Your task to perform on an android device: set default search engine in the chrome app Image 0: 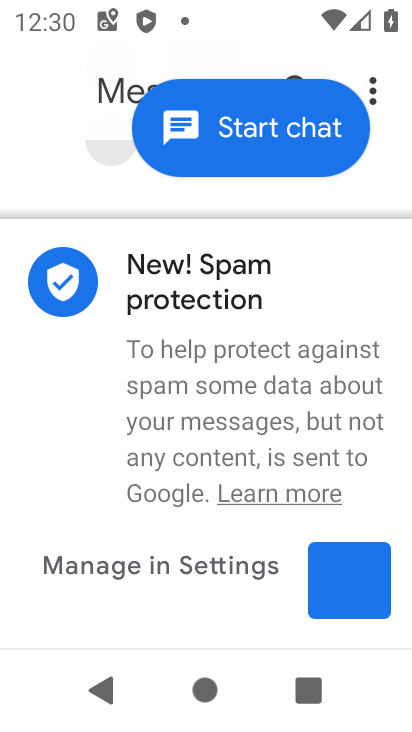
Step 0: press home button
Your task to perform on an android device: set default search engine in the chrome app Image 1: 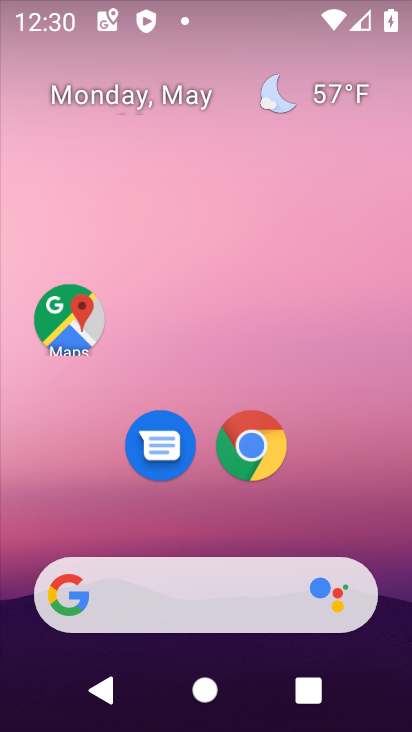
Step 1: click (275, 462)
Your task to perform on an android device: set default search engine in the chrome app Image 2: 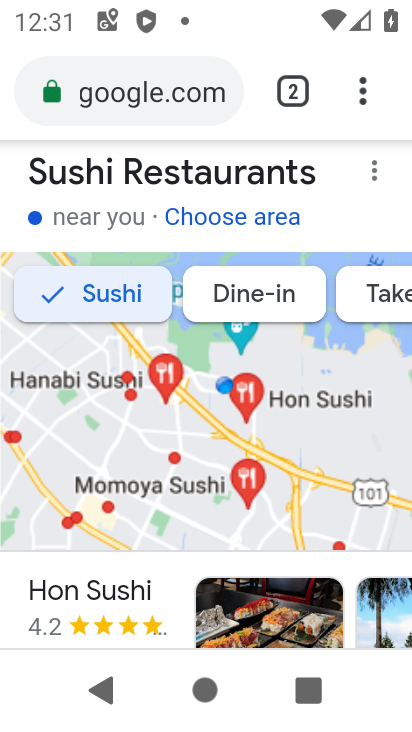
Step 2: click (357, 93)
Your task to perform on an android device: set default search engine in the chrome app Image 3: 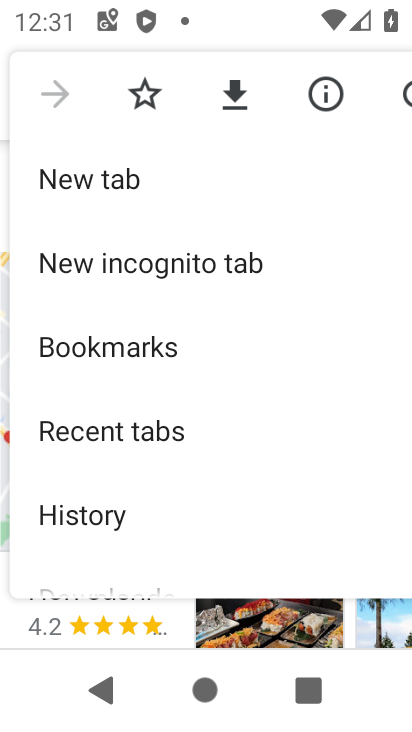
Step 3: drag from (258, 424) to (210, 222)
Your task to perform on an android device: set default search engine in the chrome app Image 4: 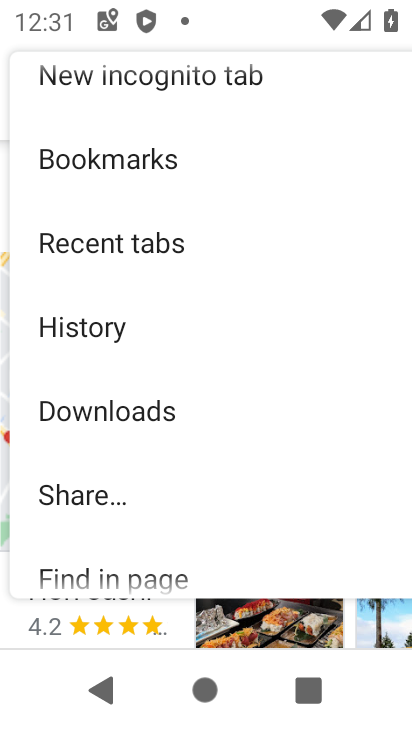
Step 4: drag from (217, 360) to (242, 125)
Your task to perform on an android device: set default search engine in the chrome app Image 5: 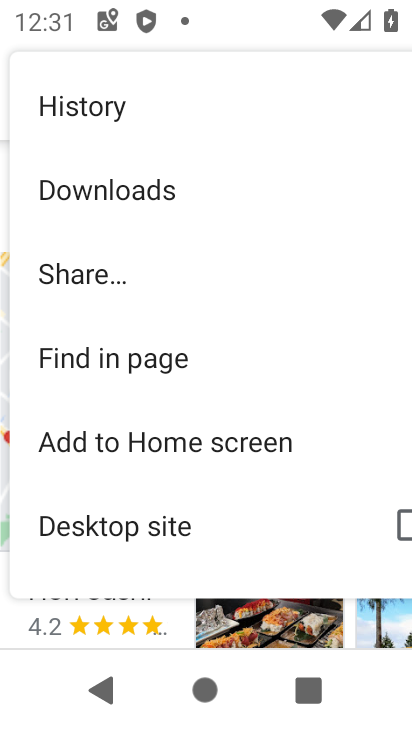
Step 5: drag from (250, 497) to (320, 145)
Your task to perform on an android device: set default search engine in the chrome app Image 6: 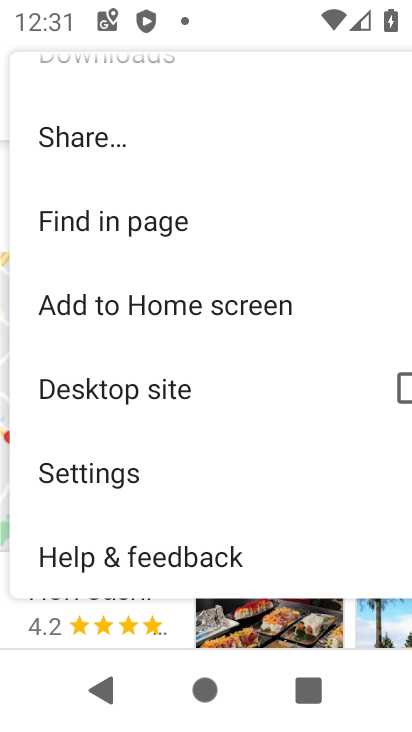
Step 6: click (112, 472)
Your task to perform on an android device: set default search engine in the chrome app Image 7: 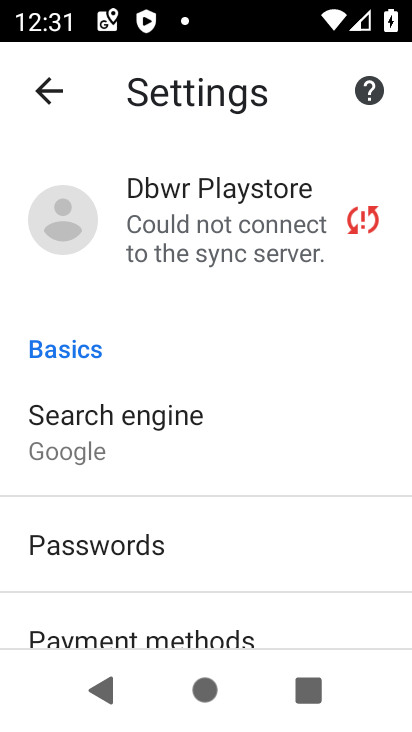
Step 7: drag from (228, 553) to (255, 225)
Your task to perform on an android device: set default search engine in the chrome app Image 8: 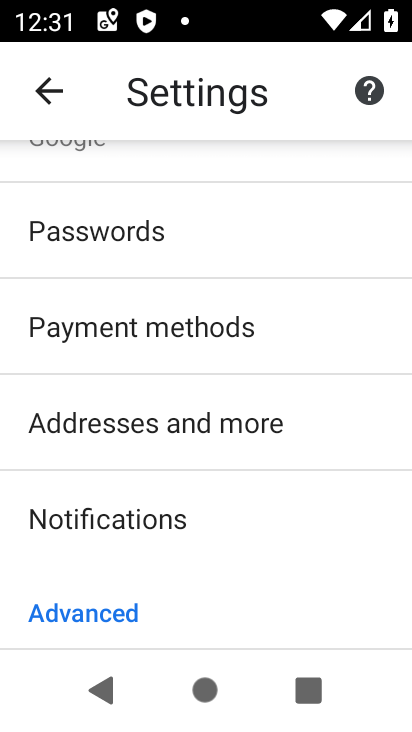
Step 8: drag from (220, 534) to (243, 245)
Your task to perform on an android device: set default search engine in the chrome app Image 9: 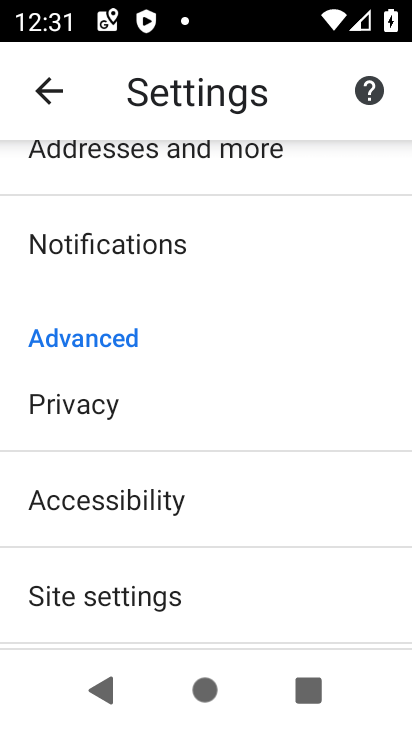
Step 9: click (172, 597)
Your task to perform on an android device: set default search engine in the chrome app Image 10: 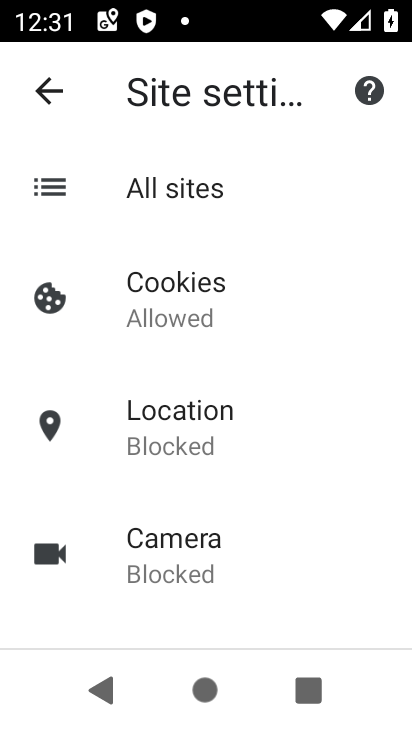
Step 10: drag from (254, 571) to (273, 252)
Your task to perform on an android device: set default search engine in the chrome app Image 11: 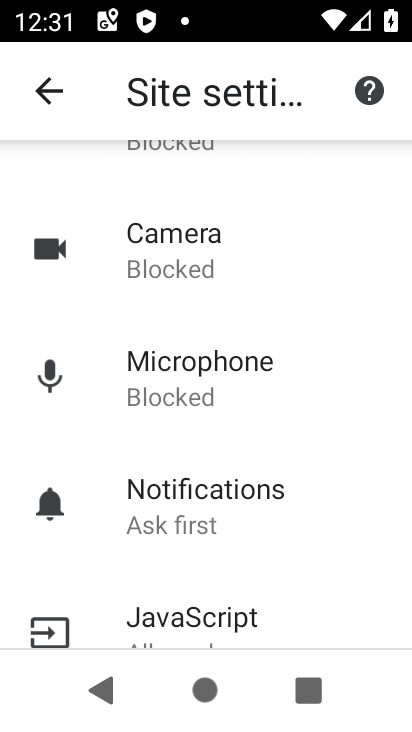
Step 11: drag from (288, 533) to (298, 162)
Your task to perform on an android device: set default search engine in the chrome app Image 12: 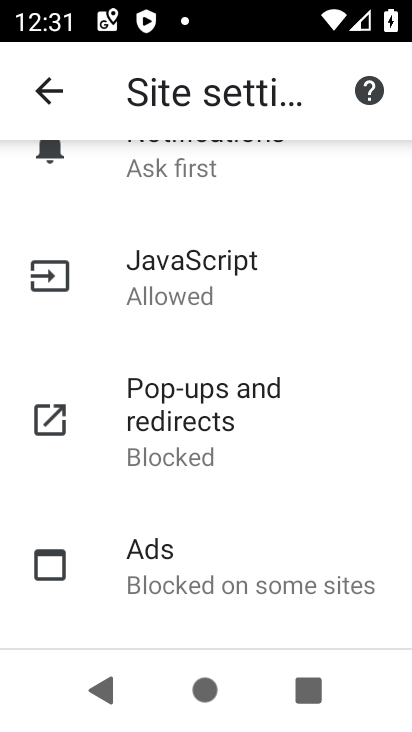
Step 12: drag from (284, 372) to (311, 185)
Your task to perform on an android device: set default search engine in the chrome app Image 13: 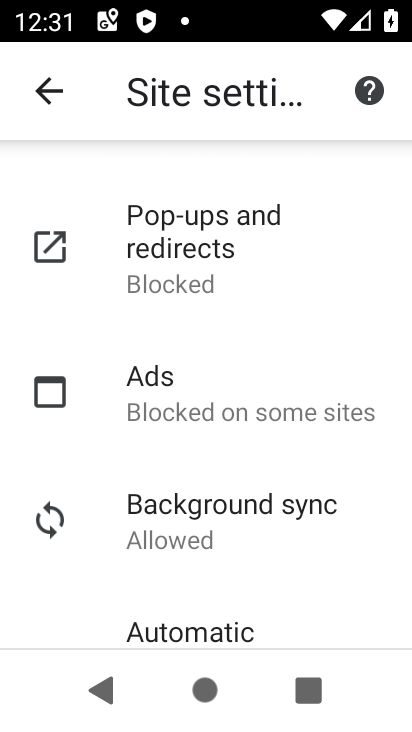
Step 13: drag from (251, 539) to (290, 211)
Your task to perform on an android device: set default search engine in the chrome app Image 14: 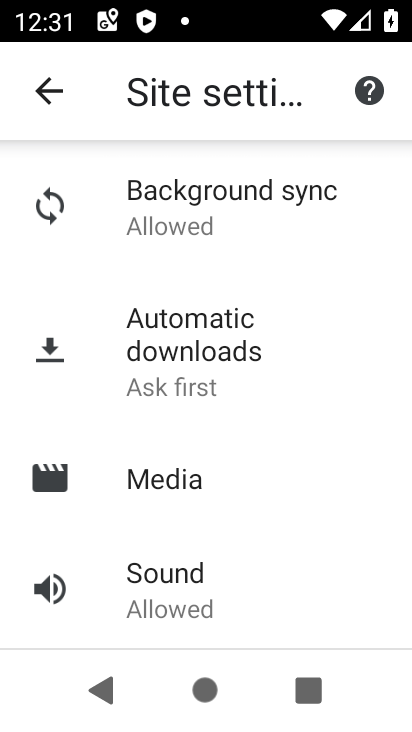
Step 14: drag from (262, 513) to (320, 231)
Your task to perform on an android device: set default search engine in the chrome app Image 15: 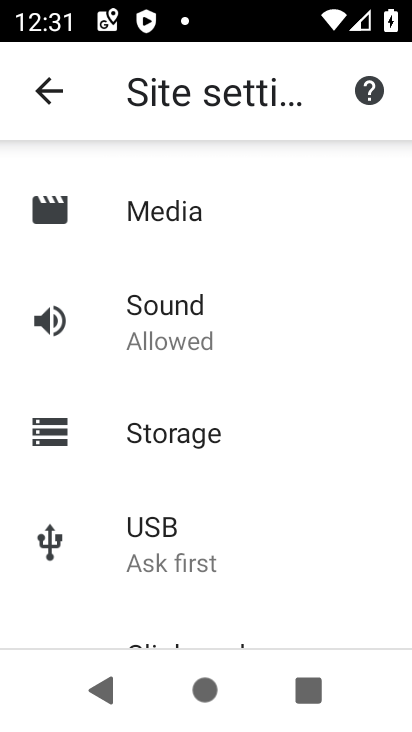
Step 15: drag from (288, 346) to (312, 244)
Your task to perform on an android device: set default search engine in the chrome app Image 16: 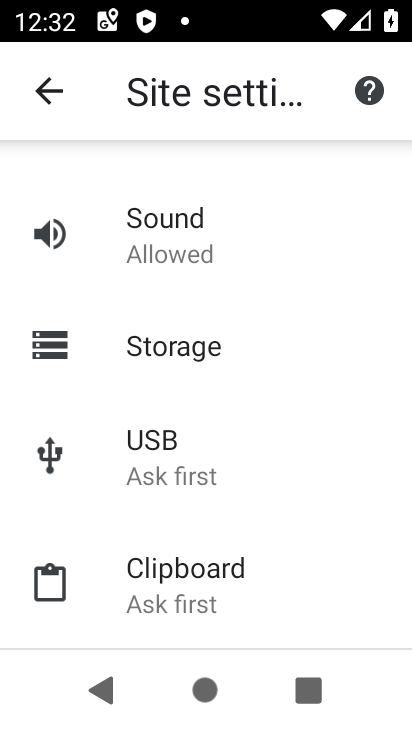
Step 16: drag from (287, 495) to (296, 280)
Your task to perform on an android device: set default search engine in the chrome app Image 17: 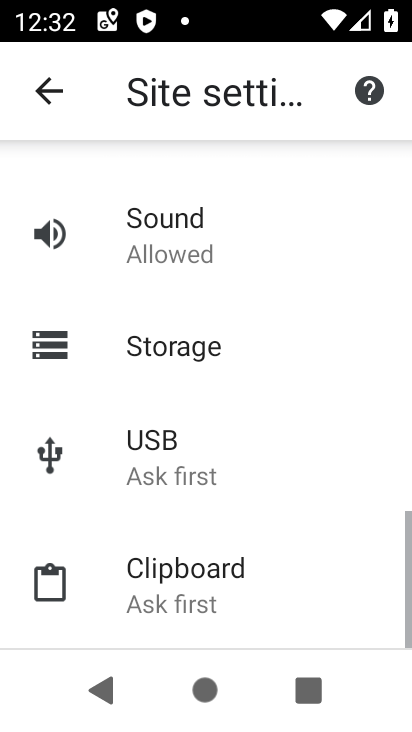
Step 17: drag from (301, 215) to (288, 560)
Your task to perform on an android device: set default search engine in the chrome app Image 18: 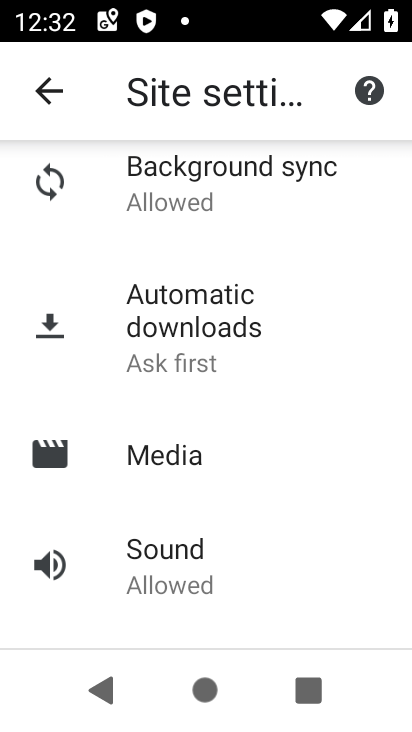
Step 18: drag from (273, 354) to (247, 622)
Your task to perform on an android device: set default search engine in the chrome app Image 19: 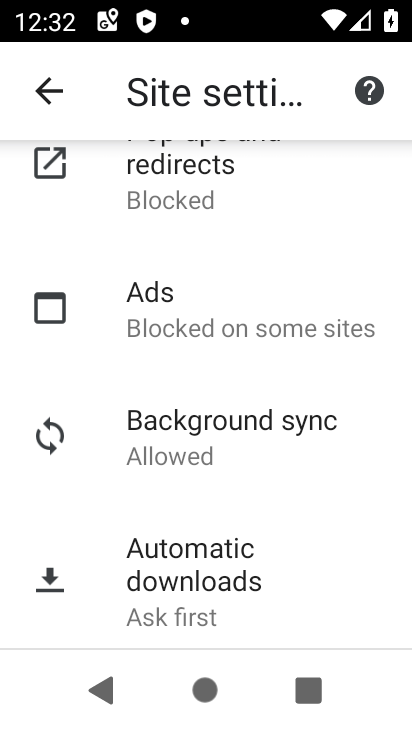
Step 19: drag from (282, 325) to (247, 530)
Your task to perform on an android device: set default search engine in the chrome app Image 20: 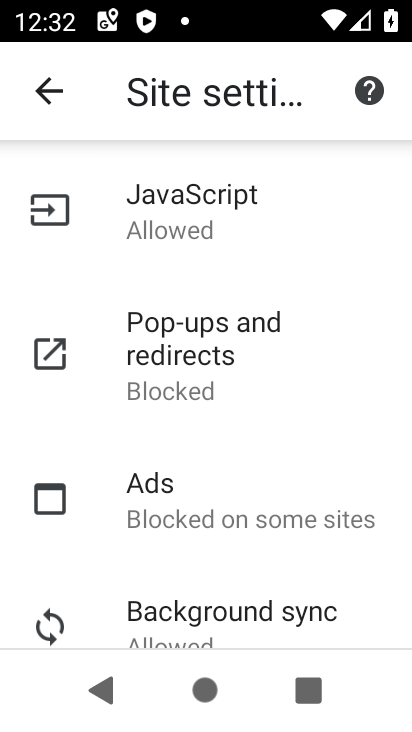
Step 20: click (338, 303)
Your task to perform on an android device: set default search engine in the chrome app Image 21: 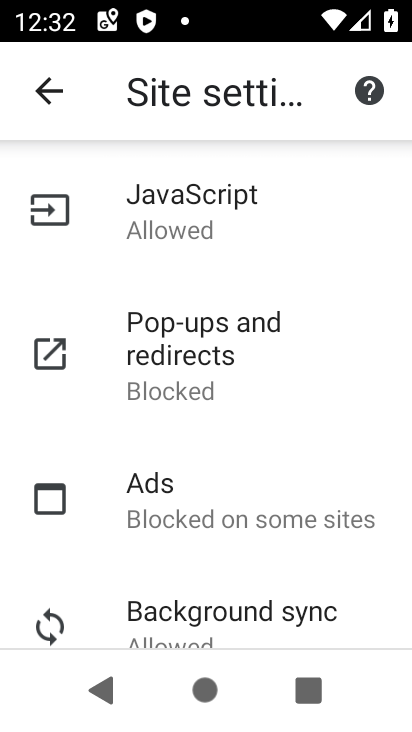
Step 21: task complete